Your task to perform on an android device: Open eBay Image 0: 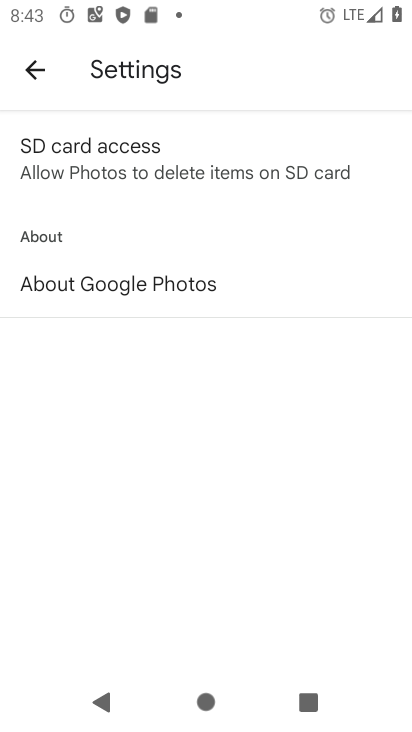
Step 0: press home button
Your task to perform on an android device: Open eBay Image 1: 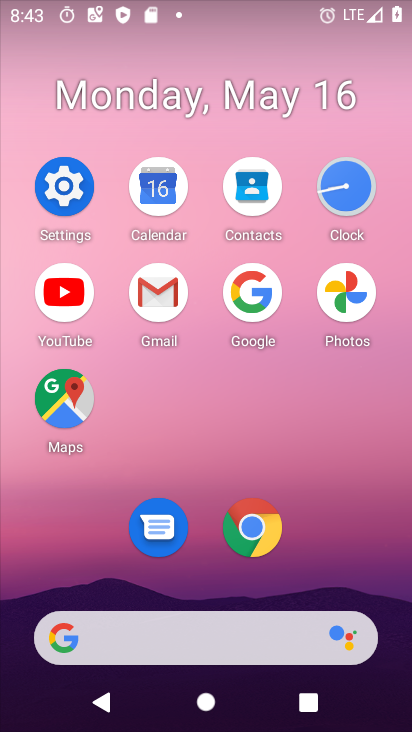
Step 1: click (263, 529)
Your task to perform on an android device: Open eBay Image 2: 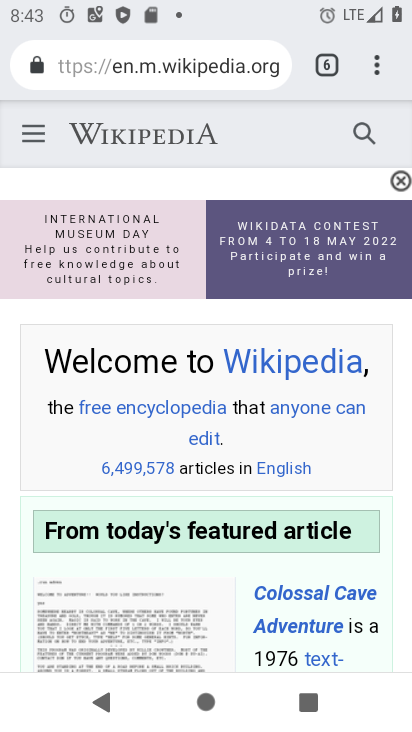
Step 2: click (325, 62)
Your task to perform on an android device: Open eBay Image 3: 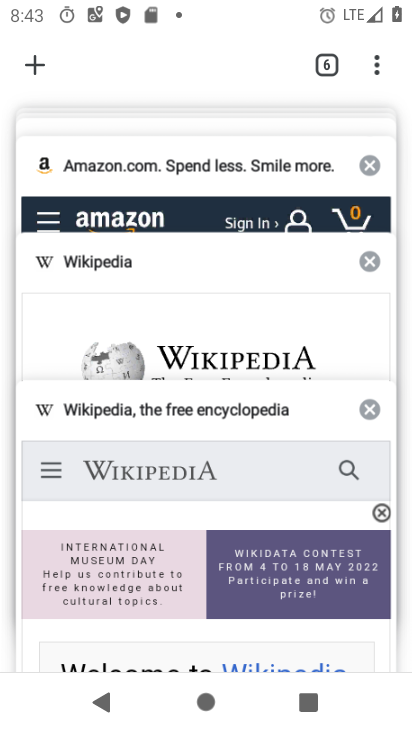
Step 3: click (37, 82)
Your task to perform on an android device: Open eBay Image 4: 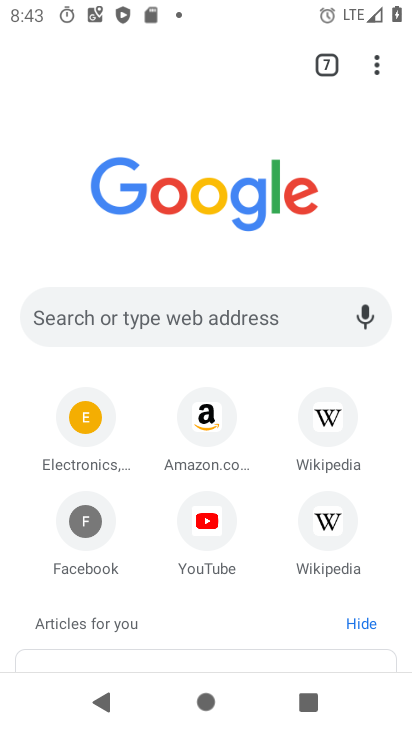
Step 4: click (197, 308)
Your task to perform on an android device: Open eBay Image 5: 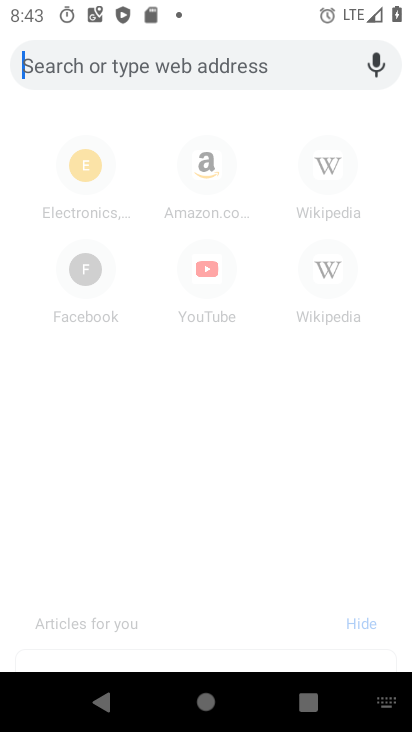
Step 5: click (80, 166)
Your task to perform on an android device: Open eBay Image 6: 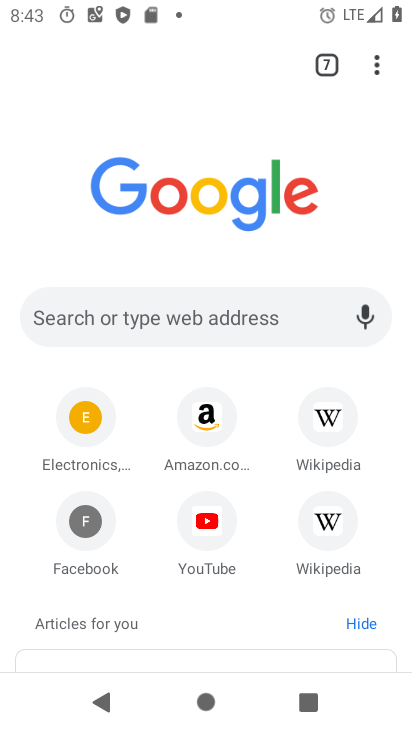
Step 6: click (104, 435)
Your task to perform on an android device: Open eBay Image 7: 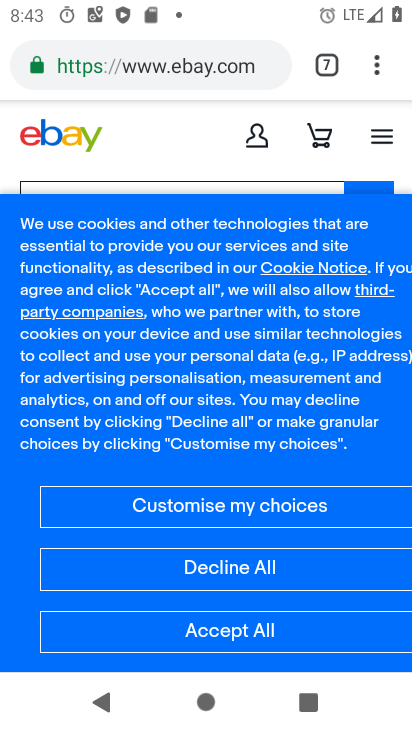
Step 7: task complete